Your task to perform on an android device: turn off location history Image 0: 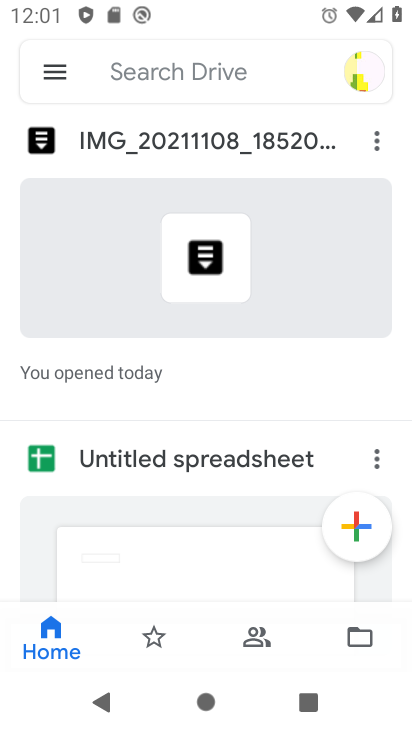
Step 0: press home button
Your task to perform on an android device: turn off location history Image 1: 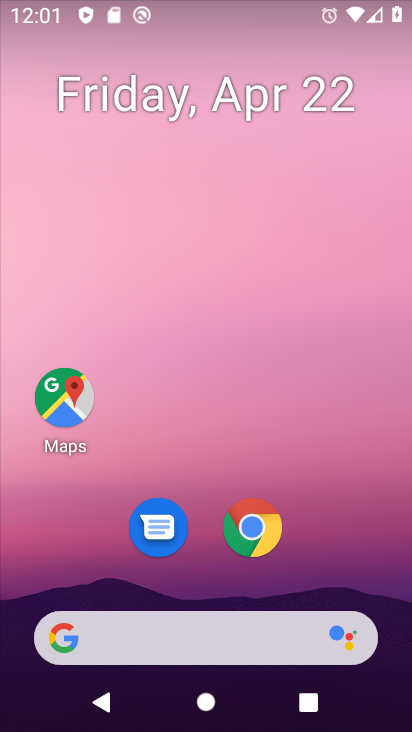
Step 1: drag from (205, 585) to (218, 44)
Your task to perform on an android device: turn off location history Image 2: 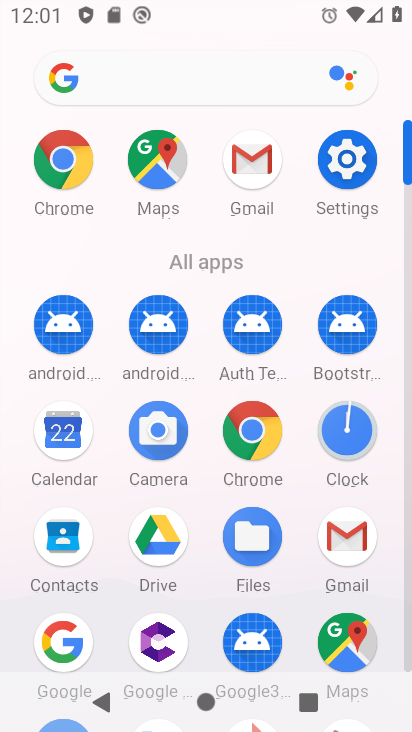
Step 2: click (327, 136)
Your task to perform on an android device: turn off location history Image 3: 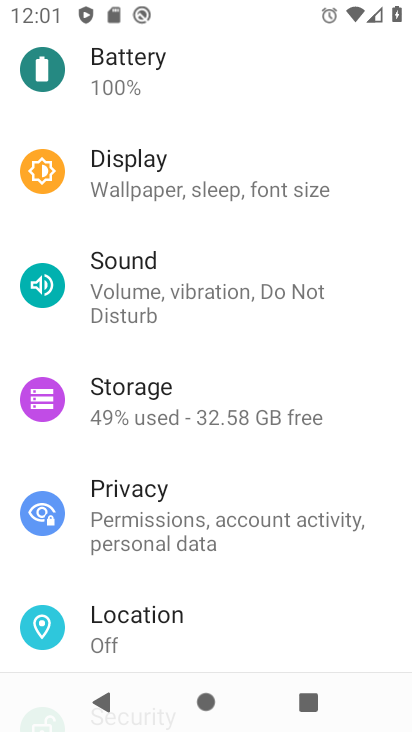
Step 3: click (136, 636)
Your task to perform on an android device: turn off location history Image 4: 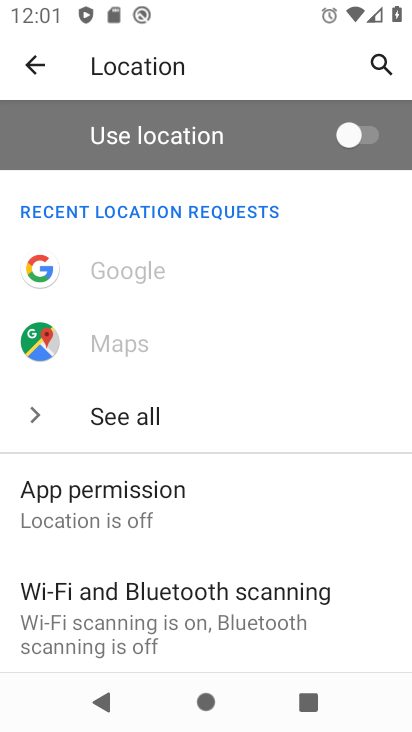
Step 4: drag from (225, 613) to (266, 351)
Your task to perform on an android device: turn off location history Image 5: 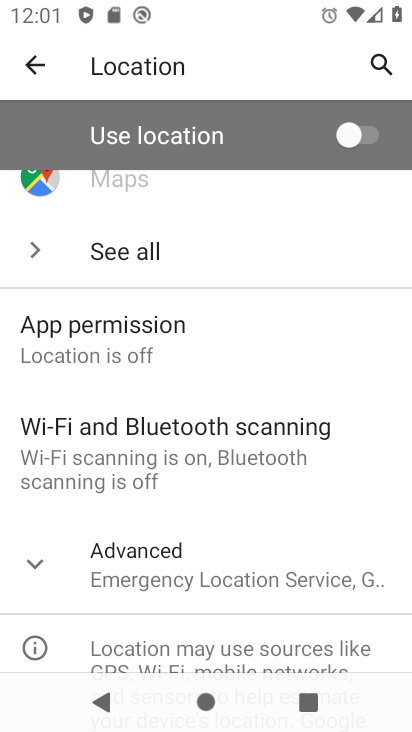
Step 5: click (234, 574)
Your task to perform on an android device: turn off location history Image 6: 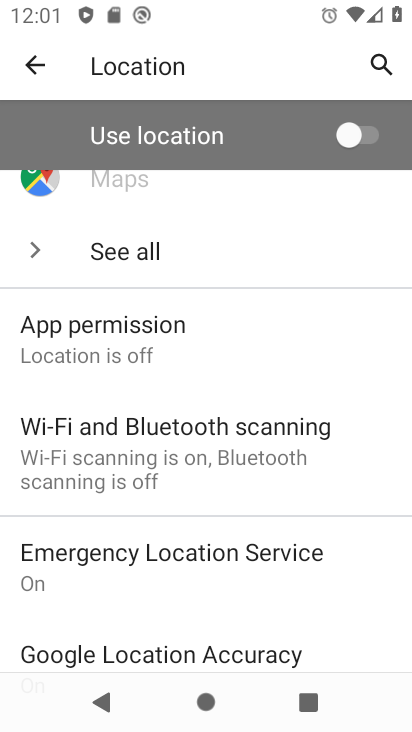
Step 6: drag from (245, 363) to (259, 323)
Your task to perform on an android device: turn off location history Image 7: 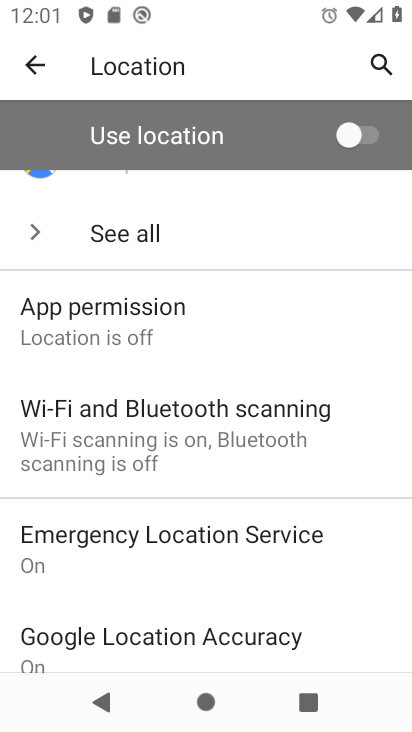
Step 7: drag from (239, 546) to (248, 331)
Your task to perform on an android device: turn off location history Image 8: 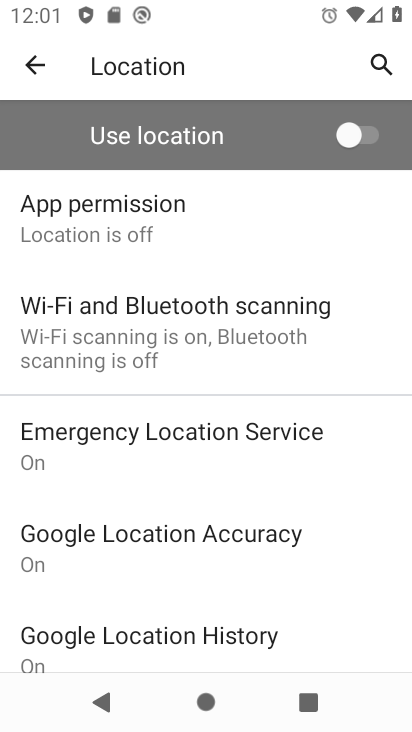
Step 8: drag from (252, 609) to (252, 487)
Your task to perform on an android device: turn off location history Image 9: 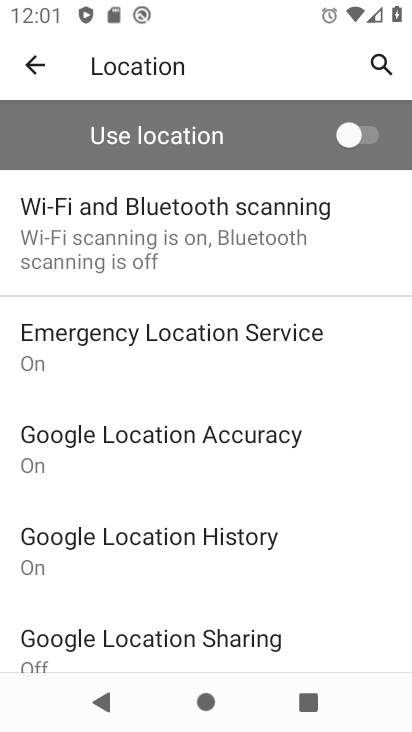
Step 9: click (194, 541)
Your task to perform on an android device: turn off location history Image 10: 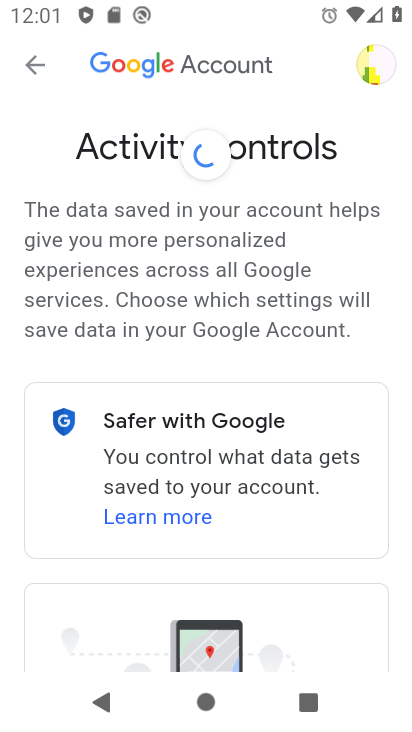
Step 10: drag from (262, 536) to (272, 197)
Your task to perform on an android device: turn off location history Image 11: 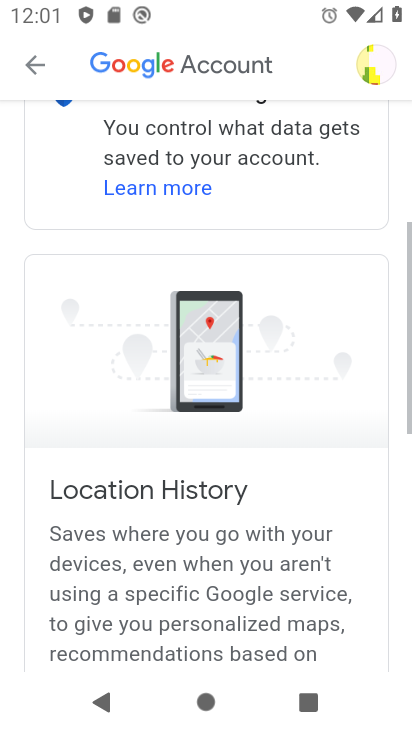
Step 11: drag from (265, 578) to (294, 255)
Your task to perform on an android device: turn off location history Image 12: 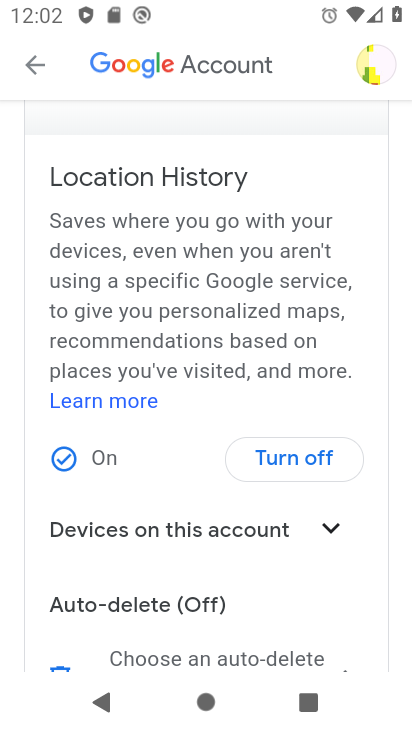
Step 12: click (278, 460)
Your task to perform on an android device: turn off location history Image 13: 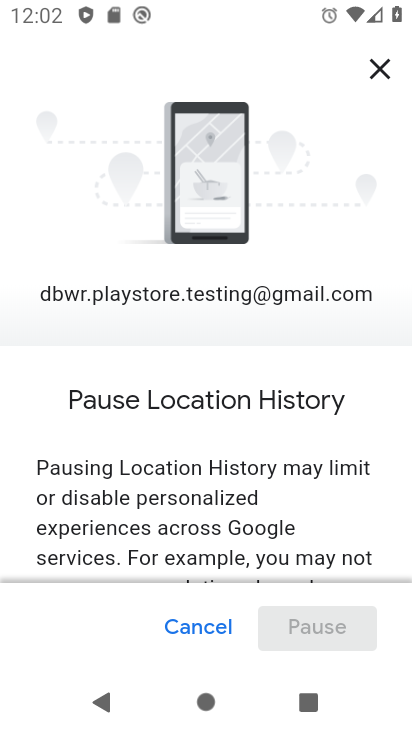
Step 13: drag from (297, 559) to (297, 242)
Your task to perform on an android device: turn off location history Image 14: 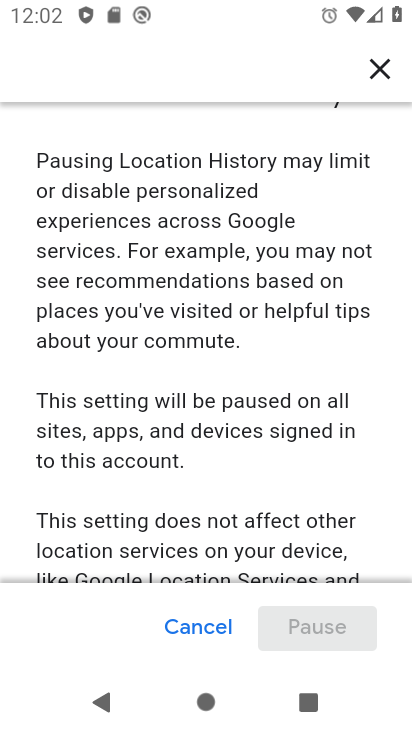
Step 14: drag from (306, 463) to (317, 182)
Your task to perform on an android device: turn off location history Image 15: 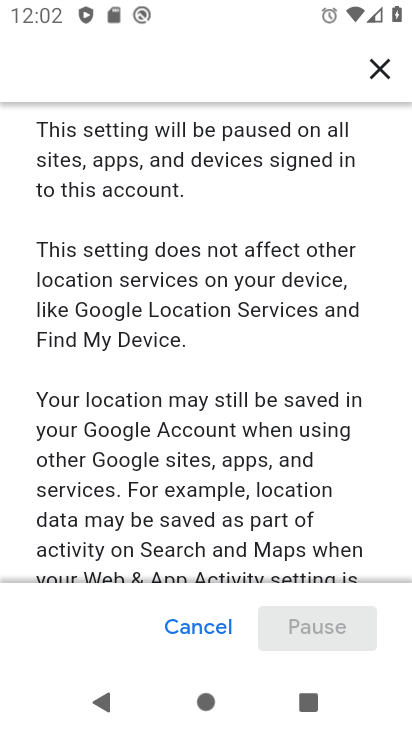
Step 15: drag from (323, 422) to (329, 252)
Your task to perform on an android device: turn off location history Image 16: 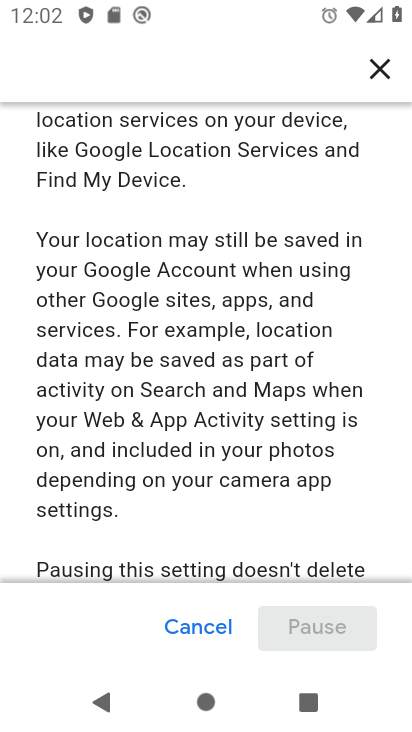
Step 16: drag from (318, 466) to (310, 239)
Your task to perform on an android device: turn off location history Image 17: 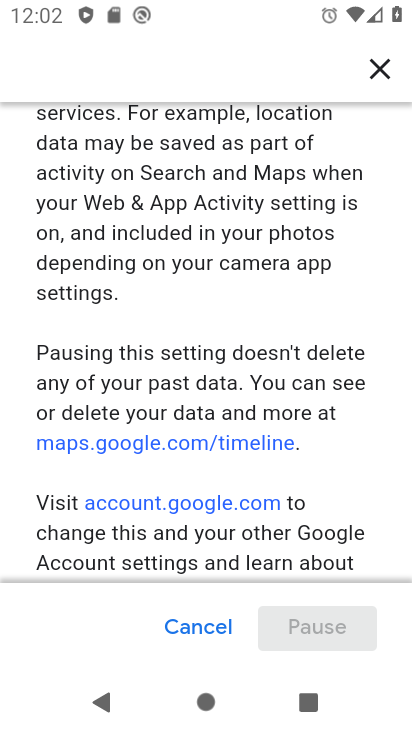
Step 17: drag from (321, 503) to (321, 275)
Your task to perform on an android device: turn off location history Image 18: 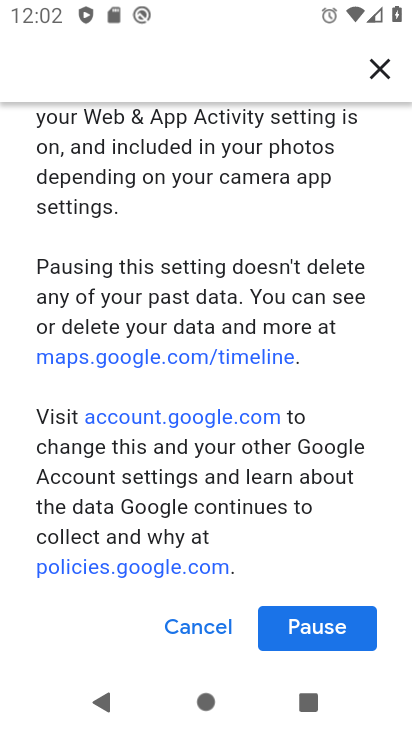
Step 18: click (307, 623)
Your task to perform on an android device: turn off location history Image 19: 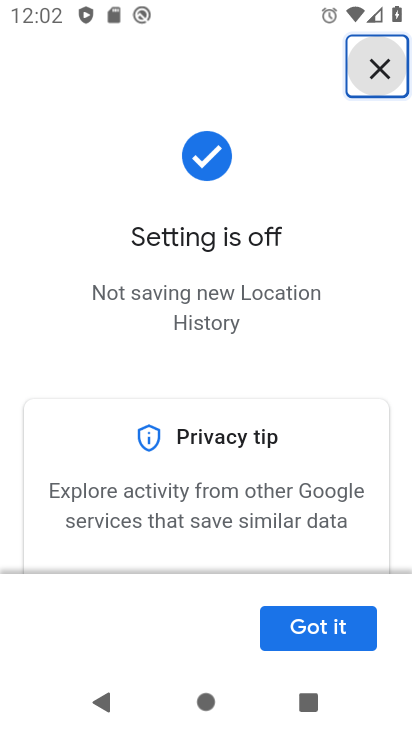
Step 19: task complete